Your task to perform on an android device: turn smart compose on in the gmail app Image 0: 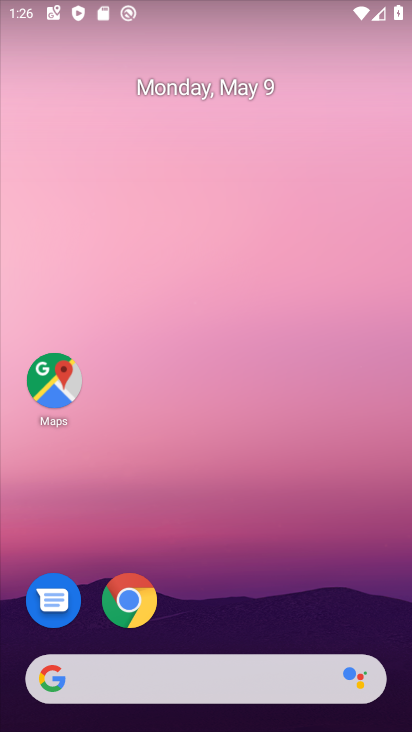
Step 0: drag from (203, 623) to (297, 15)
Your task to perform on an android device: turn smart compose on in the gmail app Image 1: 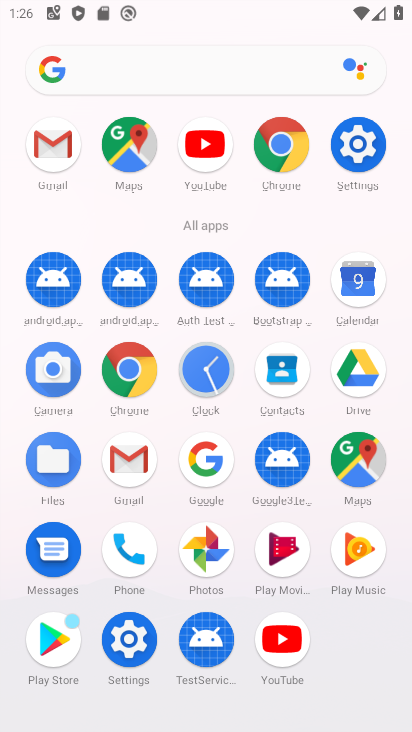
Step 1: click (58, 153)
Your task to perform on an android device: turn smart compose on in the gmail app Image 2: 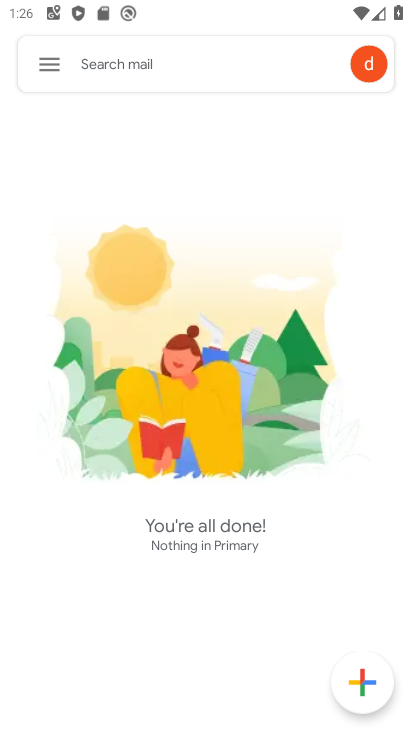
Step 2: click (53, 71)
Your task to perform on an android device: turn smart compose on in the gmail app Image 3: 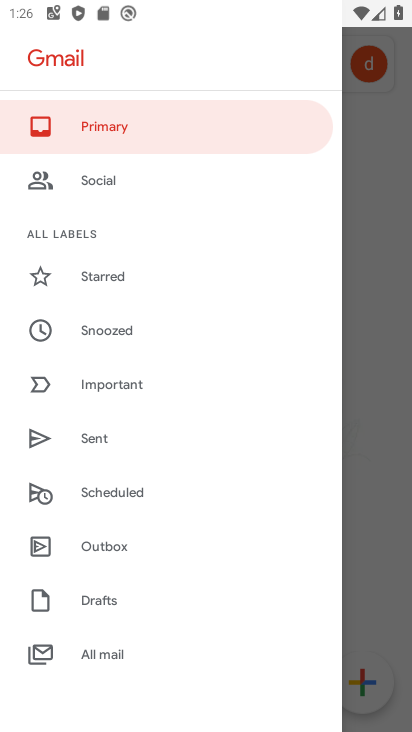
Step 3: drag from (103, 689) to (160, 206)
Your task to perform on an android device: turn smart compose on in the gmail app Image 4: 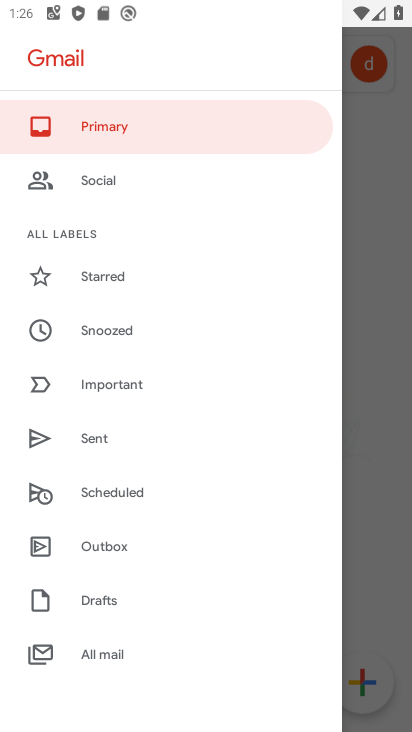
Step 4: drag from (107, 701) to (159, 146)
Your task to perform on an android device: turn smart compose on in the gmail app Image 5: 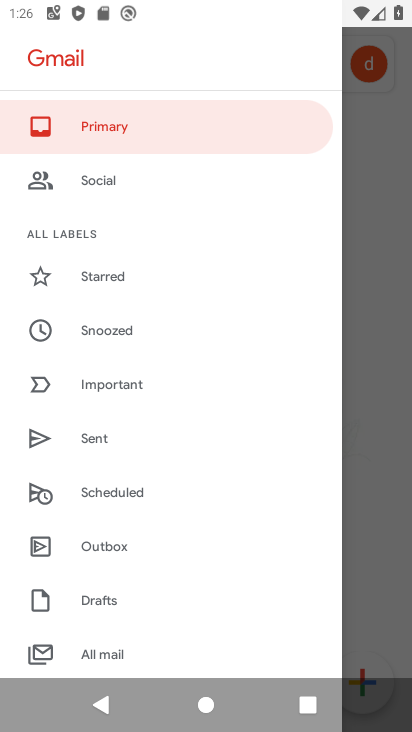
Step 5: drag from (227, 577) to (234, 330)
Your task to perform on an android device: turn smart compose on in the gmail app Image 6: 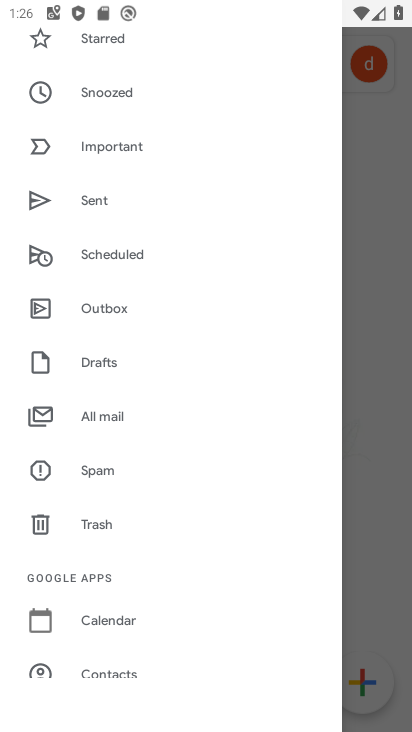
Step 6: drag from (186, 265) to (198, 142)
Your task to perform on an android device: turn smart compose on in the gmail app Image 7: 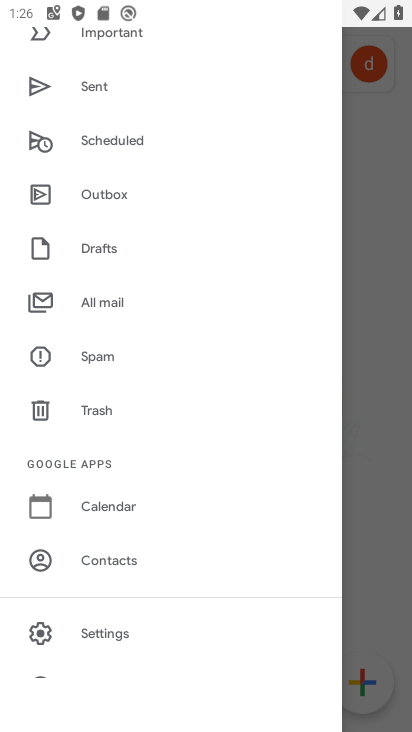
Step 7: click (77, 650)
Your task to perform on an android device: turn smart compose on in the gmail app Image 8: 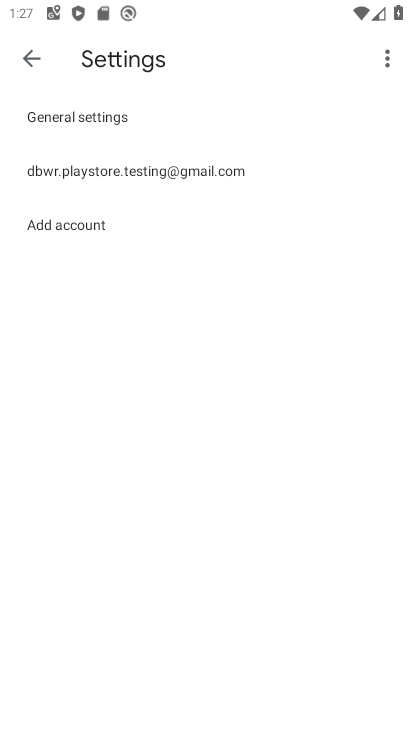
Step 8: click (270, 166)
Your task to perform on an android device: turn smart compose on in the gmail app Image 9: 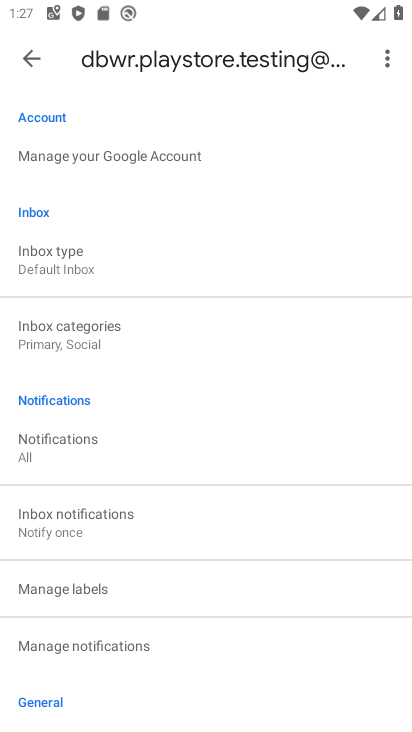
Step 9: task complete